Your task to perform on an android device: find which apps use the phone's location Image 0: 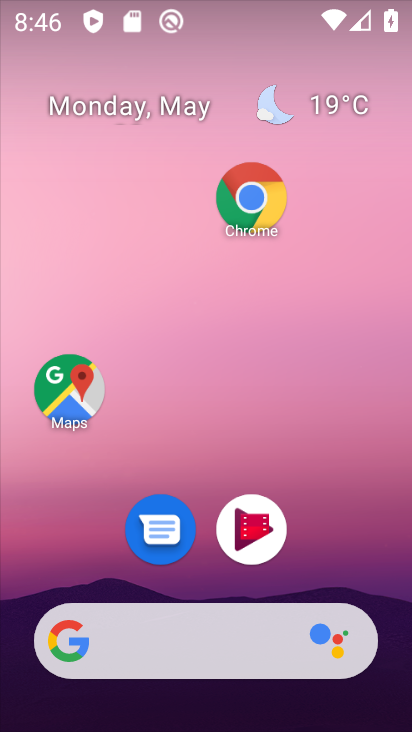
Step 0: drag from (320, 559) to (311, 200)
Your task to perform on an android device: find which apps use the phone's location Image 1: 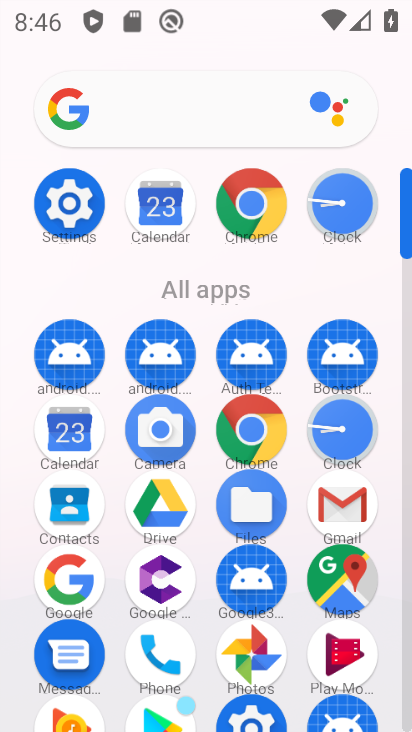
Step 1: click (74, 211)
Your task to perform on an android device: find which apps use the phone's location Image 2: 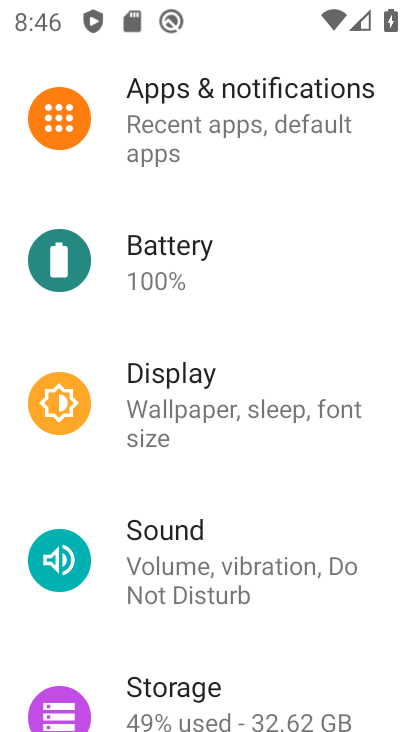
Step 2: drag from (189, 229) to (237, 504)
Your task to perform on an android device: find which apps use the phone's location Image 3: 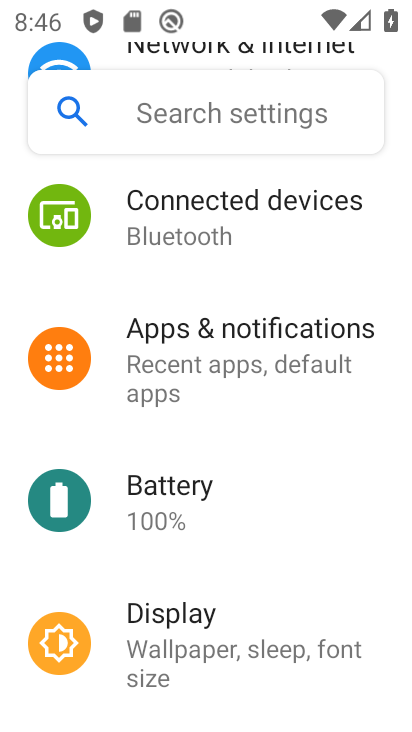
Step 3: drag from (244, 612) to (259, 286)
Your task to perform on an android device: find which apps use the phone's location Image 4: 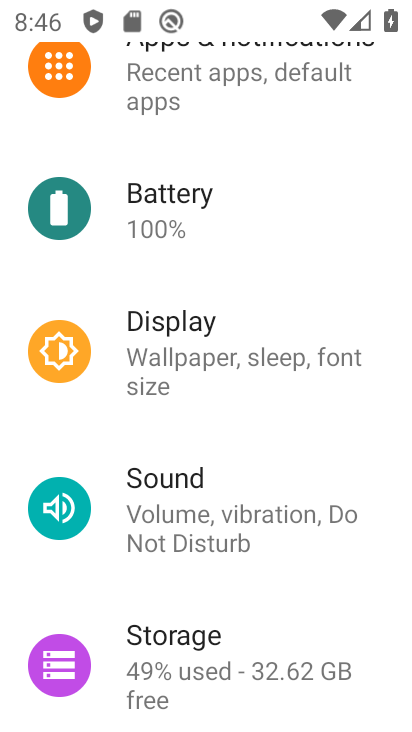
Step 4: drag from (230, 574) to (241, 322)
Your task to perform on an android device: find which apps use the phone's location Image 5: 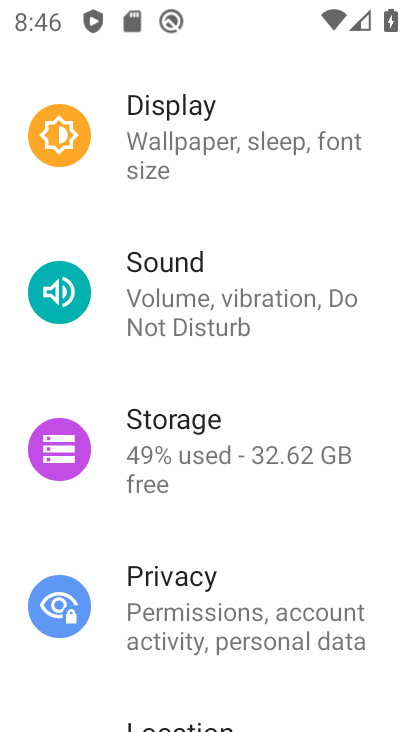
Step 5: drag from (200, 559) to (234, 334)
Your task to perform on an android device: find which apps use the phone's location Image 6: 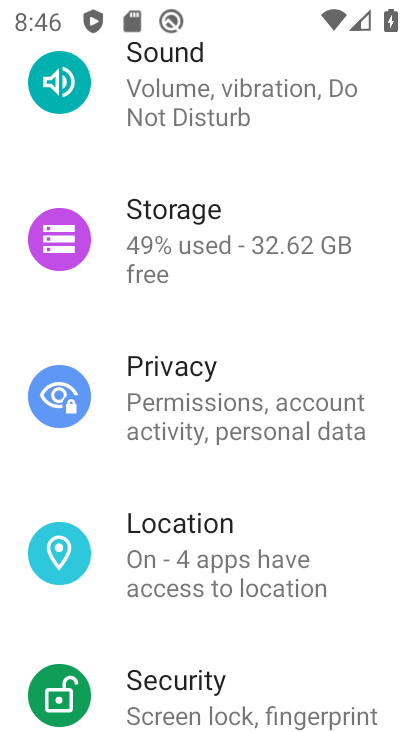
Step 6: click (196, 575)
Your task to perform on an android device: find which apps use the phone's location Image 7: 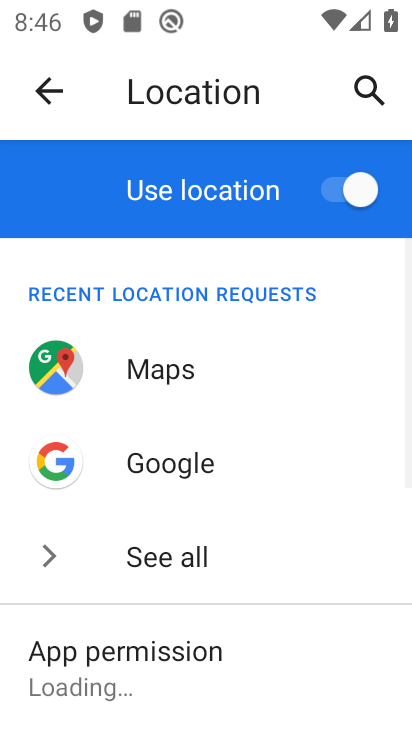
Step 7: drag from (233, 676) to (246, 400)
Your task to perform on an android device: find which apps use the phone's location Image 8: 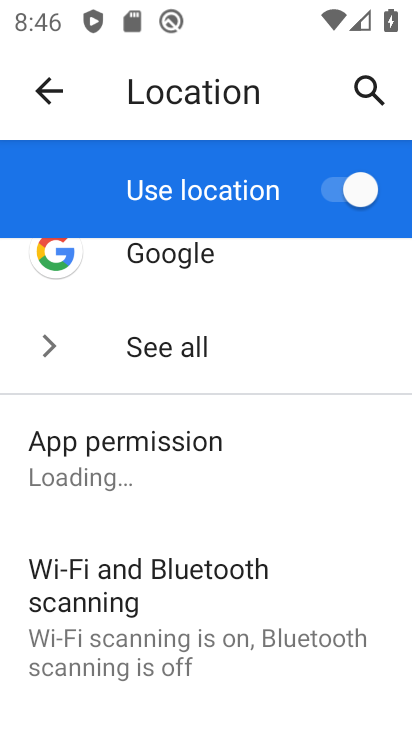
Step 8: drag from (225, 589) to (271, 327)
Your task to perform on an android device: find which apps use the phone's location Image 9: 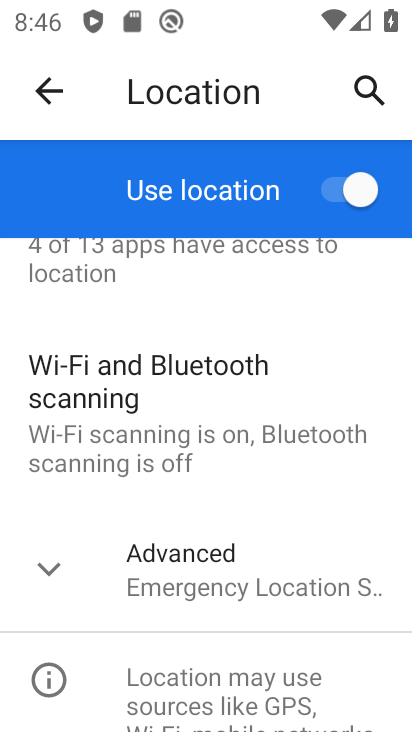
Step 9: drag from (308, 329) to (260, 656)
Your task to perform on an android device: find which apps use the phone's location Image 10: 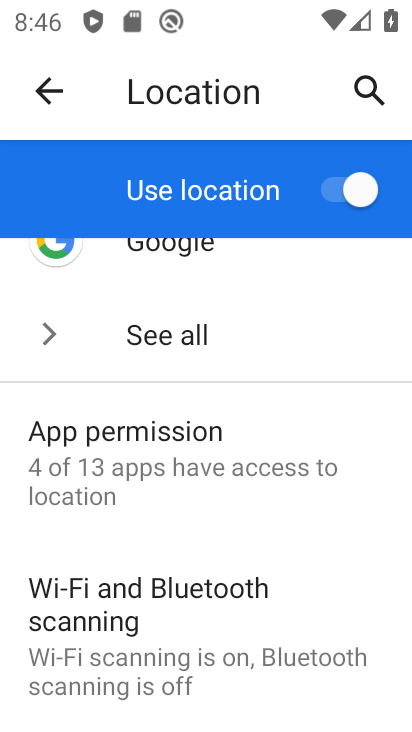
Step 10: click (110, 470)
Your task to perform on an android device: find which apps use the phone's location Image 11: 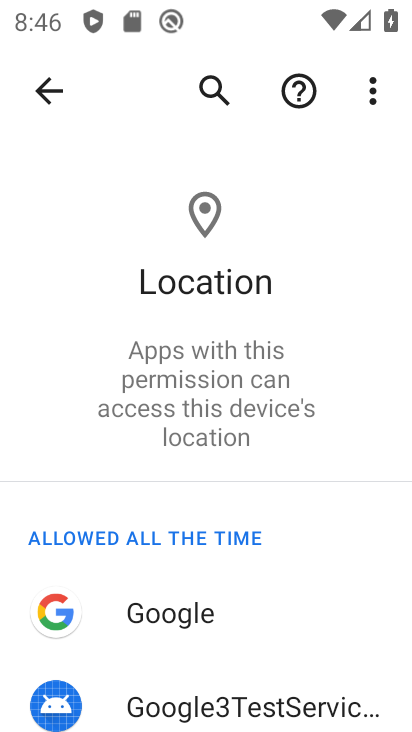
Step 11: task complete